Your task to perform on an android device: Set an alarm for 11am Image 0: 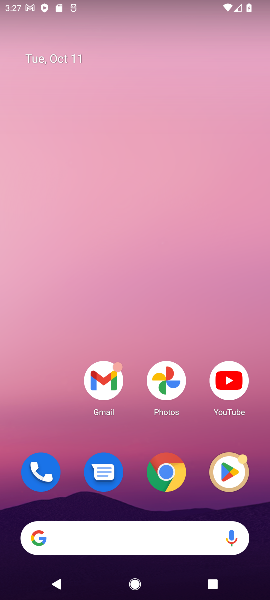
Step 0: drag from (136, 213) to (210, 21)
Your task to perform on an android device: Set an alarm for 11am Image 1: 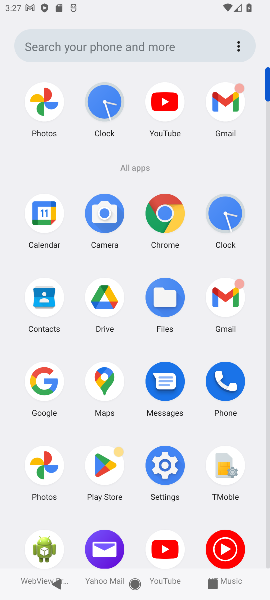
Step 1: click (107, 146)
Your task to perform on an android device: Set an alarm for 11am Image 2: 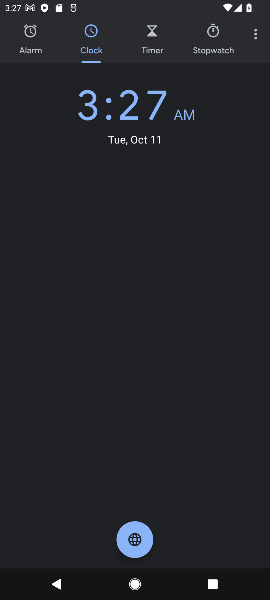
Step 2: click (25, 38)
Your task to perform on an android device: Set an alarm for 11am Image 3: 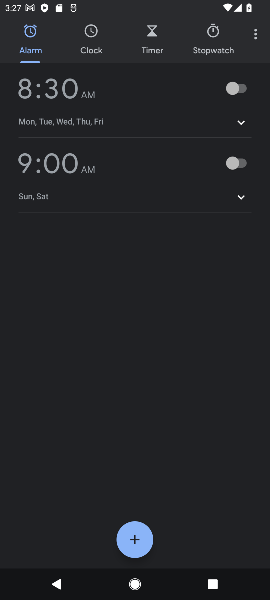
Step 3: click (135, 527)
Your task to perform on an android device: Set an alarm for 11am Image 4: 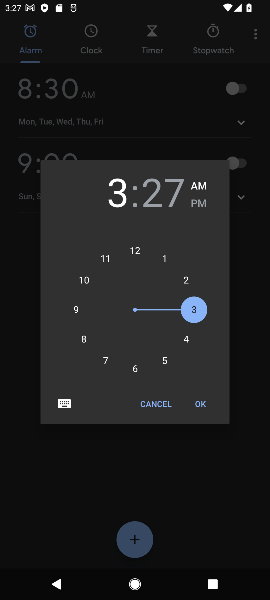
Step 4: click (99, 262)
Your task to perform on an android device: Set an alarm for 11am Image 5: 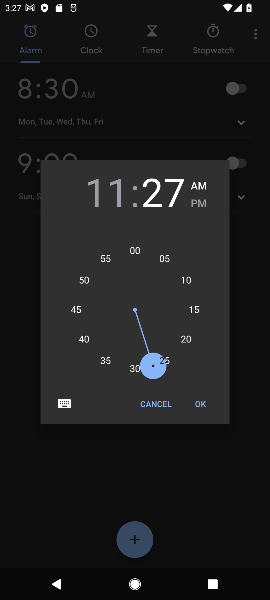
Step 5: click (138, 255)
Your task to perform on an android device: Set an alarm for 11am Image 6: 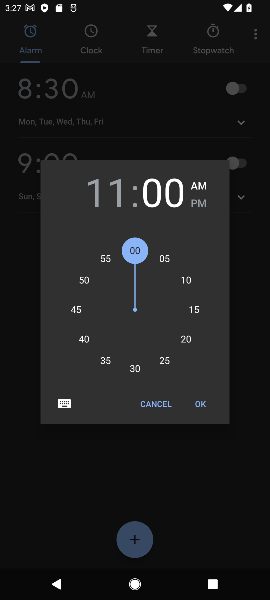
Step 6: click (200, 402)
Your task to perform on an android device: Set an alarm for 11am Image 7: 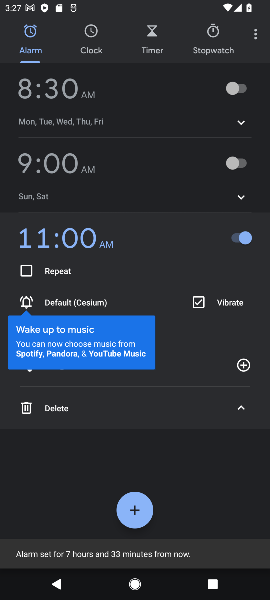
Step 7: task complete